Your task to perform on an android device: create a new album in the google photos Image 0: 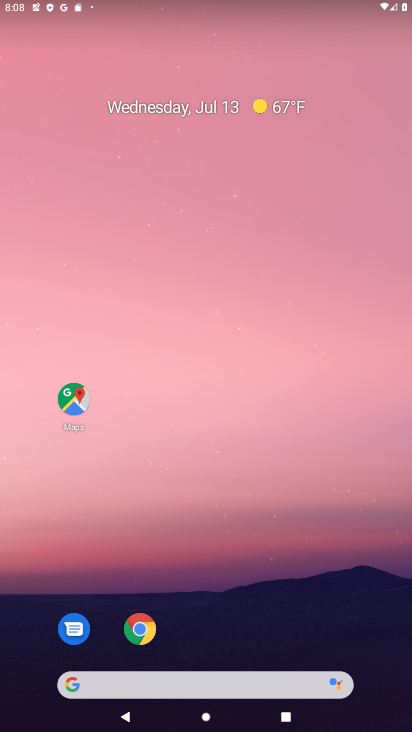
Step 0: drag from (228, 635) to (305, 123)
Your task to perform on an android device: create a new album in the google photos Image 1: 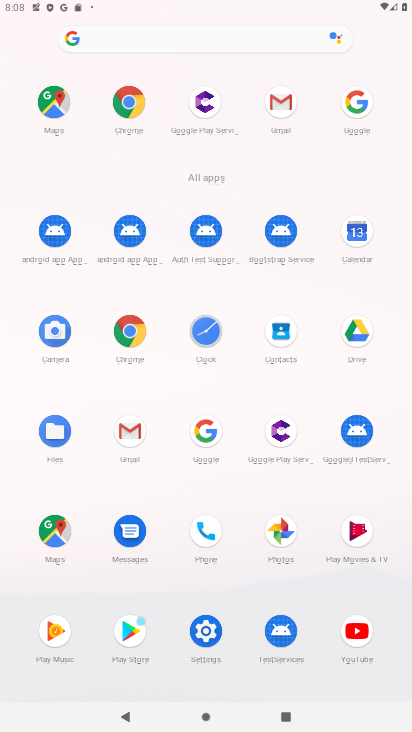
Step 1: click (282, 530)
Your task to perform on an android device: create a new album in the google photos Image 2: 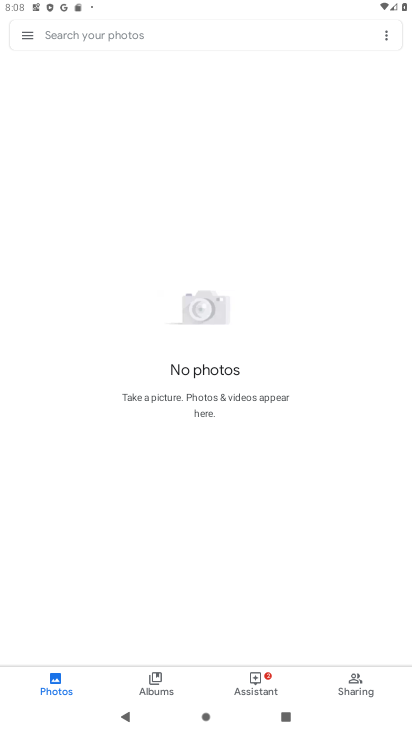
Step 2: click (157, 688)
Your task to perform on an android device: create a new album in the google photos Image 3: 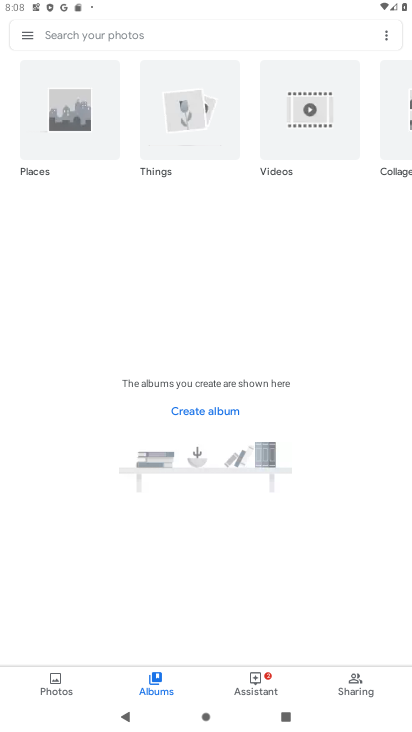
Step 3: click (201, 414)
Your task to perform on an android device: create a new album in the google photos Image 4: 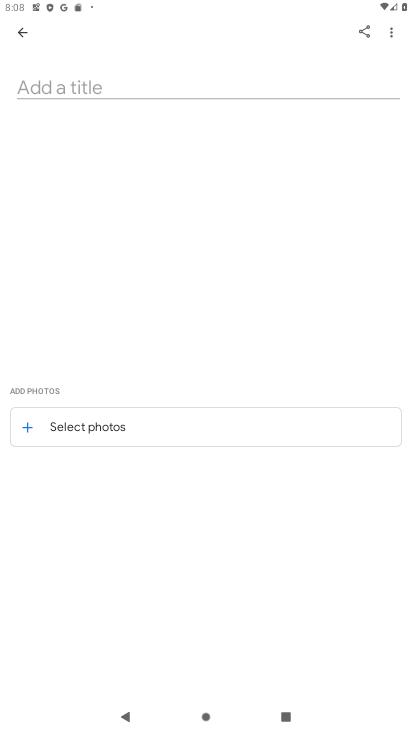
Step 4: click (23, 426)
Your task to perform on an android device: create a new album in the google photos Image 5: 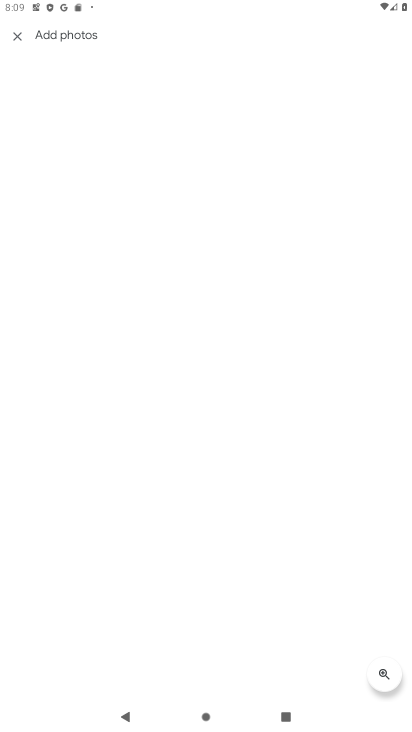
Step 5: task complete